Your task to perform on an android device: open app "Adobe Acrobat Reader: Edit PDF" (install if not already installed) Image 0: 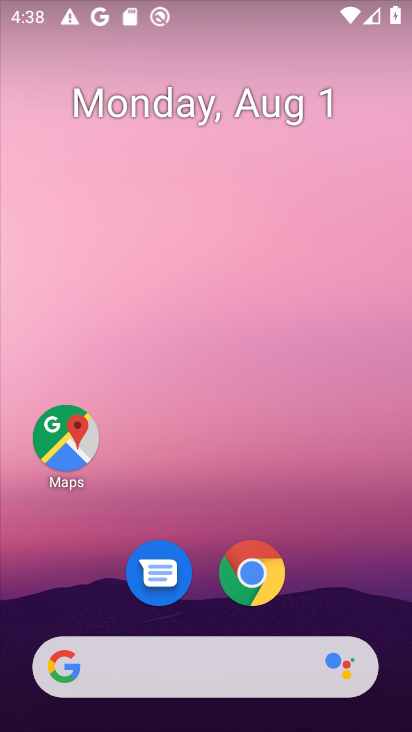
Step 0: drag from (325, 678) to (248, 116)
Your task to perform on an android device: open app "Adobe Acrobat Reader: Edit PDF" (install if not already installed) Image 1: 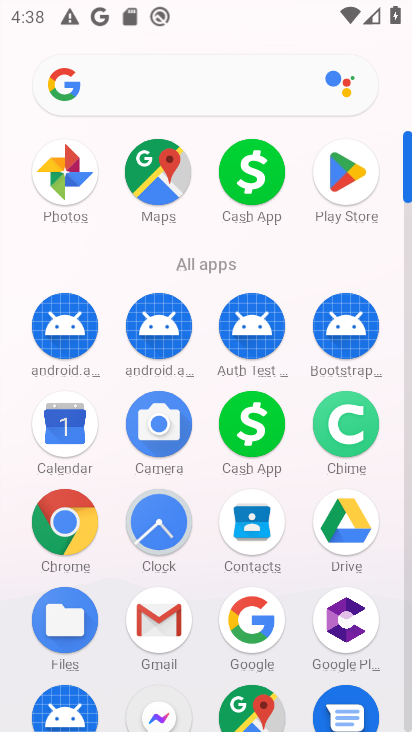
Step 1: click (333, 187)
Your task to perform on an android device: open app "Adobe Acrobat Reader: Edit PDF" (install if not already installed) Image 2: 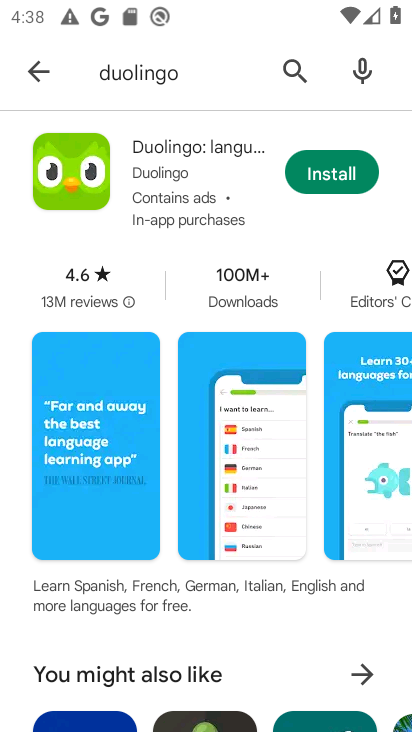
Step 2: click (41, 65)
Your task to perform on an android device: open app "Adobe Acrobat Reader: Edit PDF" (install if not already installed) Image 3: 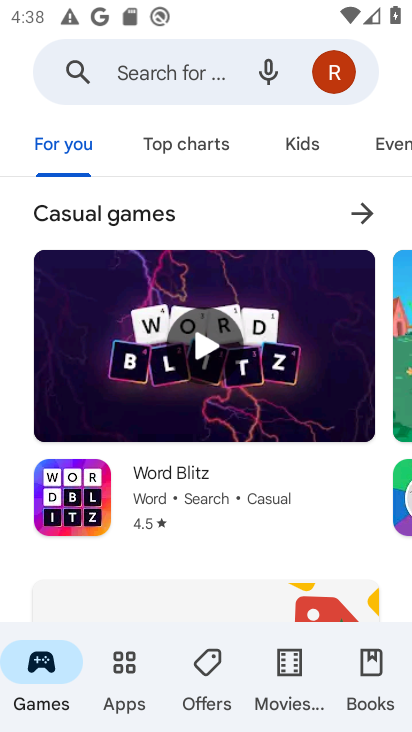
Step 3: click (114, 65)
Your task to perform on an android device: open app "Adobe Acrobat Reader: Edit PDF" (install if not already installed) Image 4: 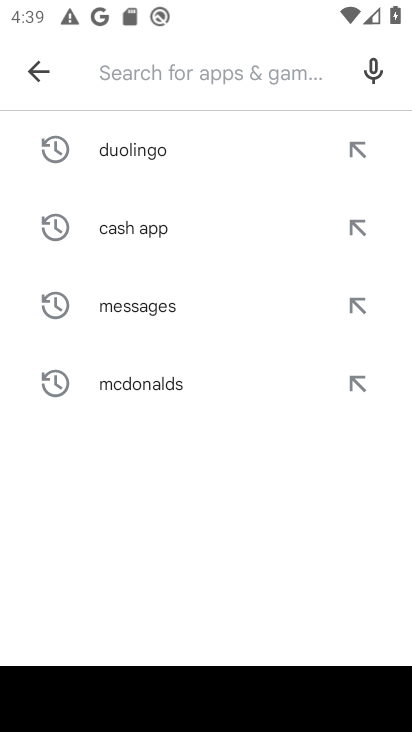
Step 4: type "Adobe Acrobat "
Your task to perform on an android device: open app "Adobe Acrobat Reader: Edit PDF" (install if not already installed) Image 5: 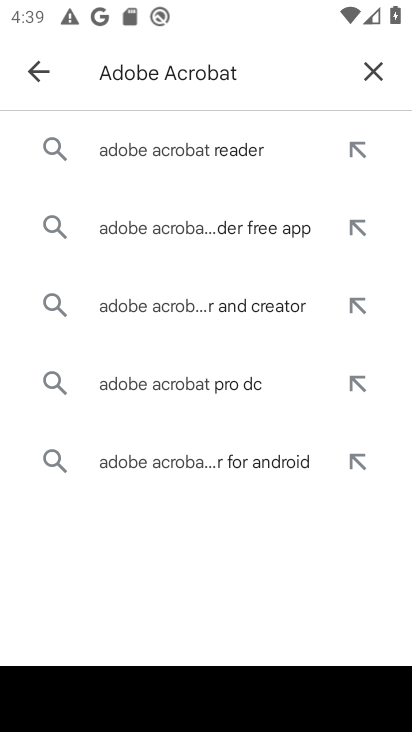
Step 5: click (181, 163)
Your task to perform on an android device: open app "Adobe Acrobat Reader: Edit PDF" (install if not already installed) Image 6: 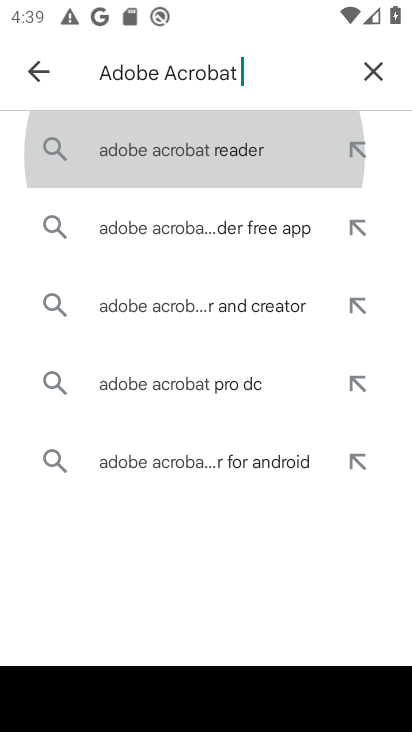
Step 6: click (182, 162)
Your task to perform on an android device: open app "Adobe Acrobat Reader: Edit PDF" (install if not already installed) Image 7: 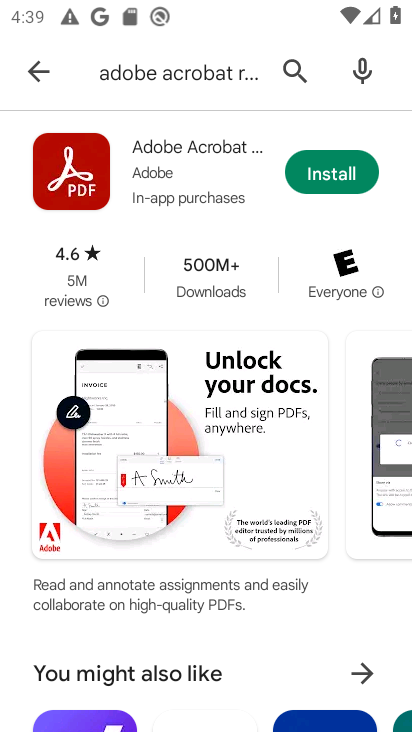
Step 7: click (327, 174)
Your task to perform on an android device: open app "Adobe Acrobat Reader: Edit PDF" (install if not already installed) Image 8: 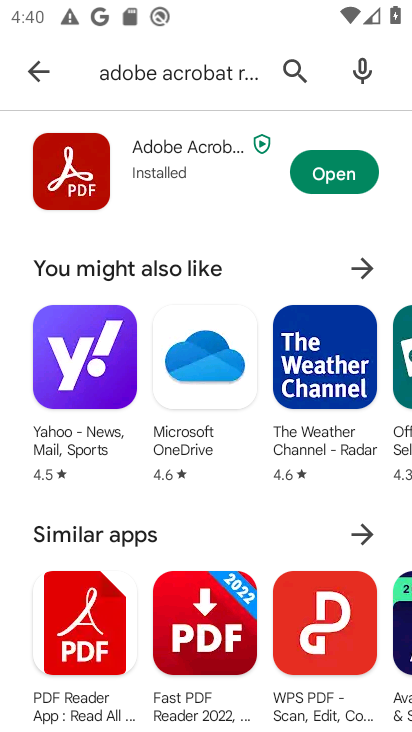
Step 8: click (343, 194)
Your task to perform on an android device: open app "Adobe Acrobat Reader: Edit PDF" (install if not already installed) Image 9: 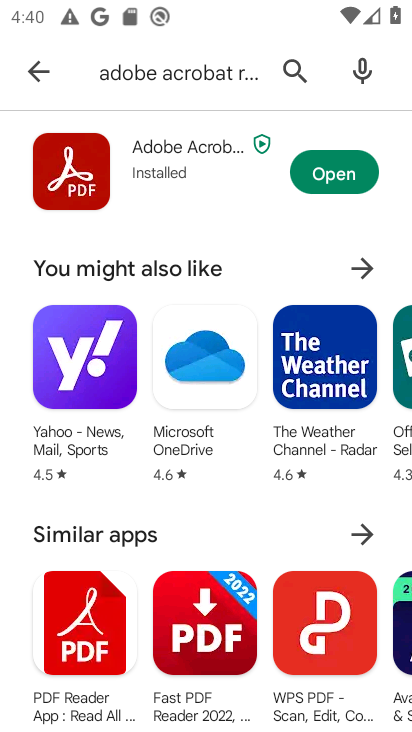
Step 9: click (345, 199)
Your task to perform on an android device: open app "Adobe Acrobat Reader: Edit PDF" (install if not already installed) Image 10: 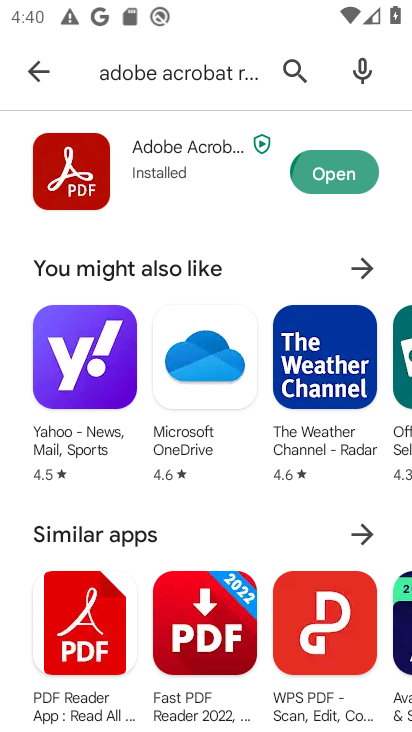
Step 10: click (345, 203)
Your task to perform on an android device: open app "Adobe Acrobat Reader: Edit PDF" (install if not already installed) Image 11: 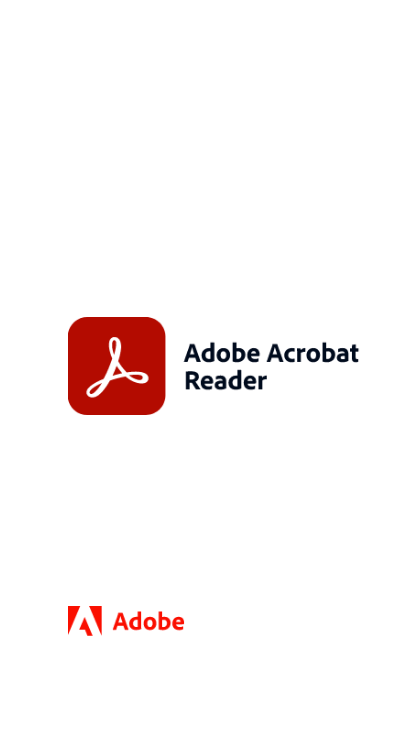
Step 11: click (343, 175)
Your task to perform on an android device: open app "Adobe Acrobat Reader: Edit PDF" (install if not already installed) Image 12: 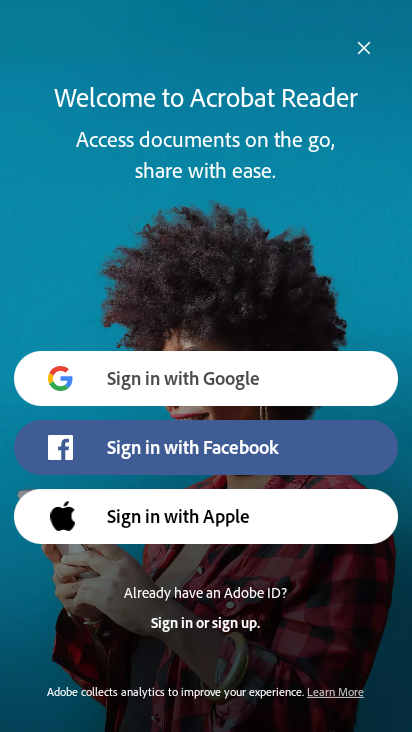
Step 12: task complete